Your task to perform on an android device: check google app version Image 0: 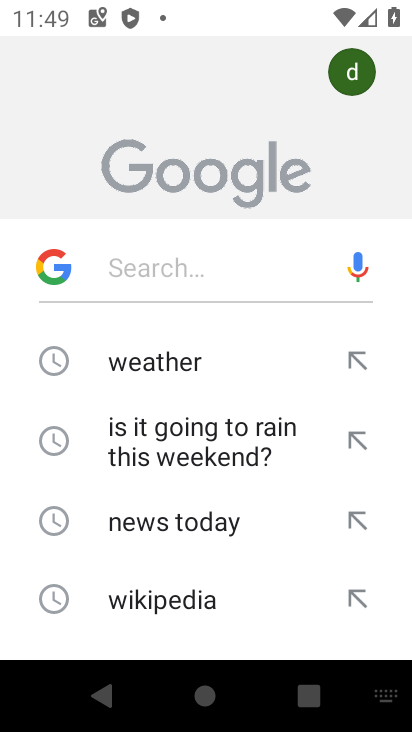
Step 0: press back button
Your task to perform on an android device: check google app version Image 1: 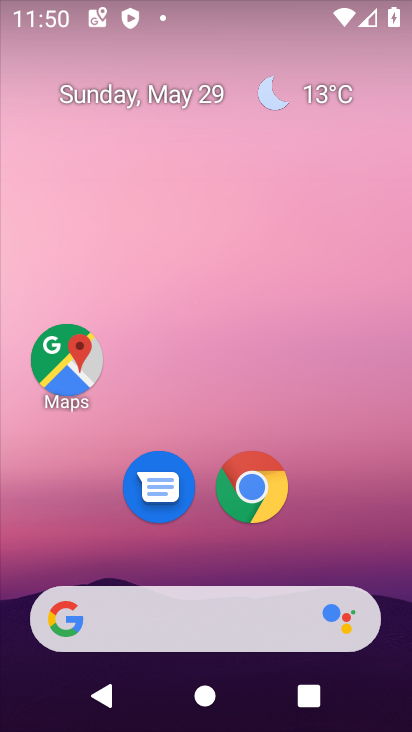
Step 1: drag from (368, 523) to (332, 111)
Your task to perform on an android device: check google app version Image 2: 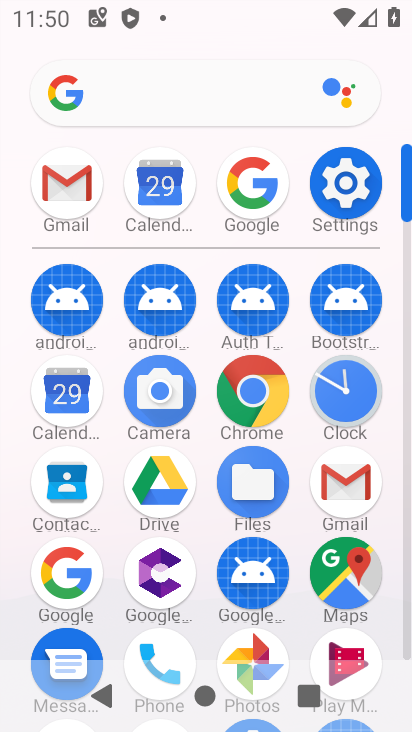
Step 2: click (53, 570)
Your task to perform on an android device: check google app version Image 3: 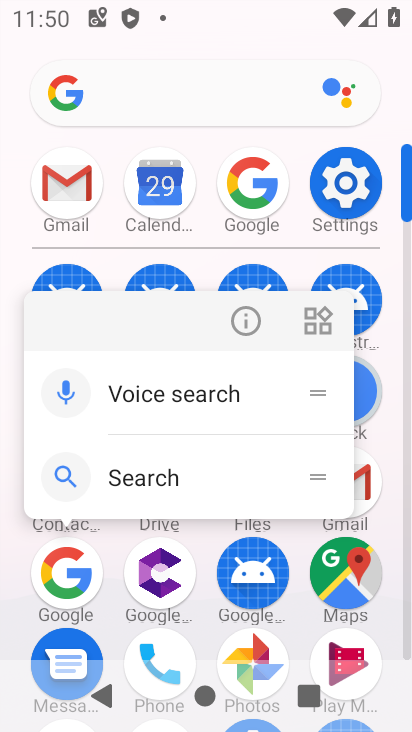
Step 3: click (251, 307)
Your task to perform on an android device: check google app version Image 4: 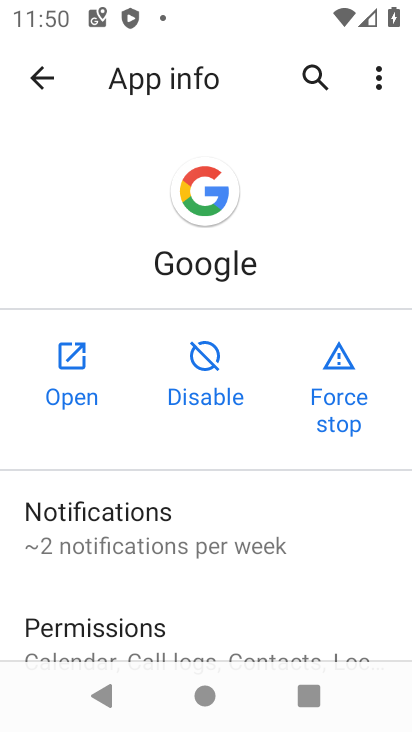
Step 4: drag from (260, 541) to (228, 123)
Your task to perform on an android device: check google app version Image 5: 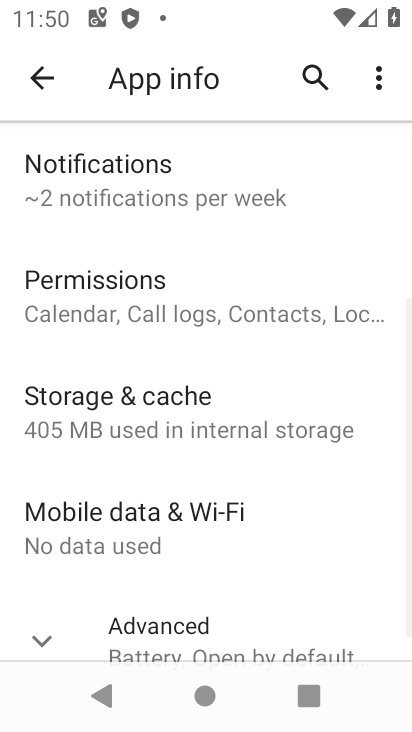
Step 5: drag from (237, 558) to (193, 252)
Your task to perform on an android device: check google app version Image 6: 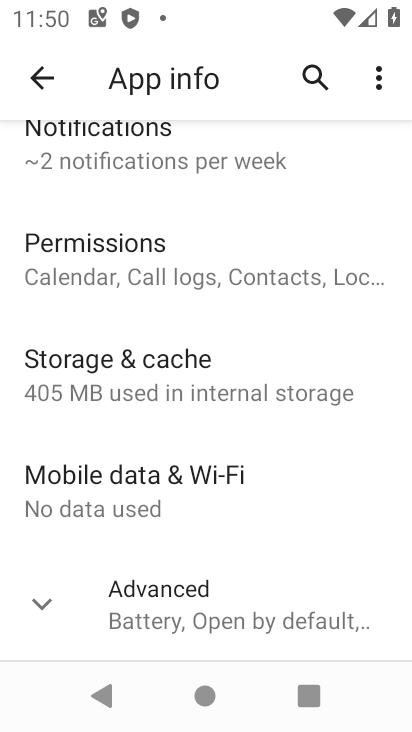
Step 6: click (221, 595)
Your task to perform on an android device: check google app version Image 7: 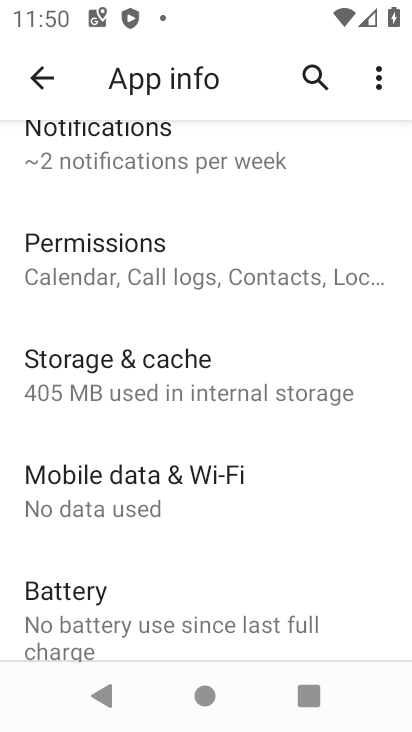
Step 7: task complete